Your task to perform on an android device: move a message to another label in the gmail app Image 0: 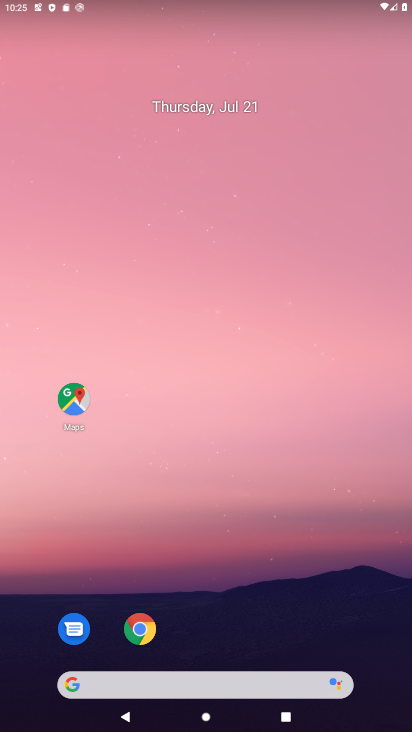
Step 0: drag from (217, 635) to (304, 46)
Your task to perform on an android device: move a message to another label in the gmail app Image 1: 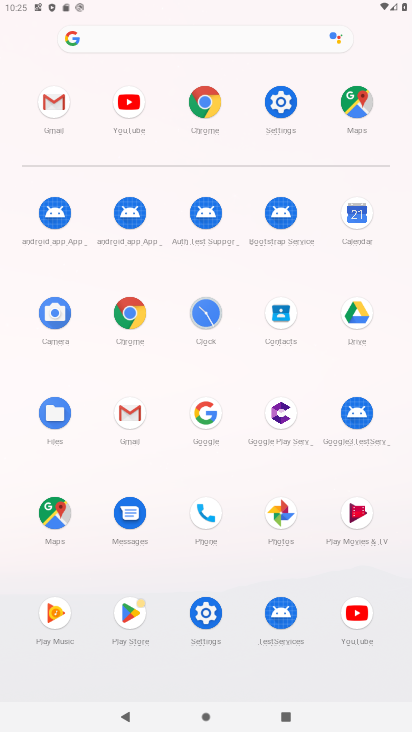
Step 1: click (52, 95)
Your task to perform on an android device: move a message to another label in the gmail app Image 2: 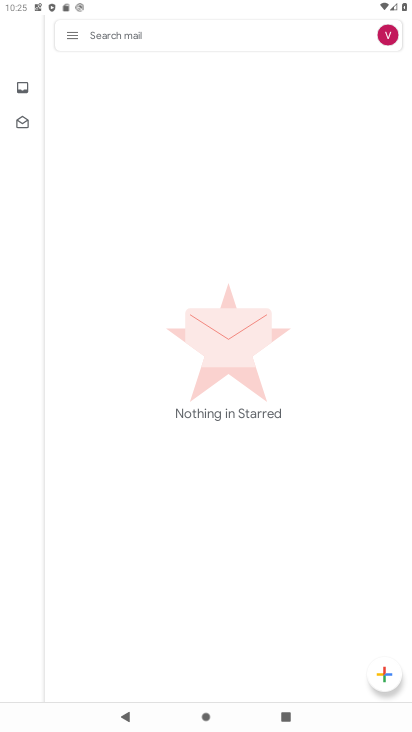
Step 2: click (64, 43)
Your task to perform on an android device: move a message to another label in the gmail app Image 3: 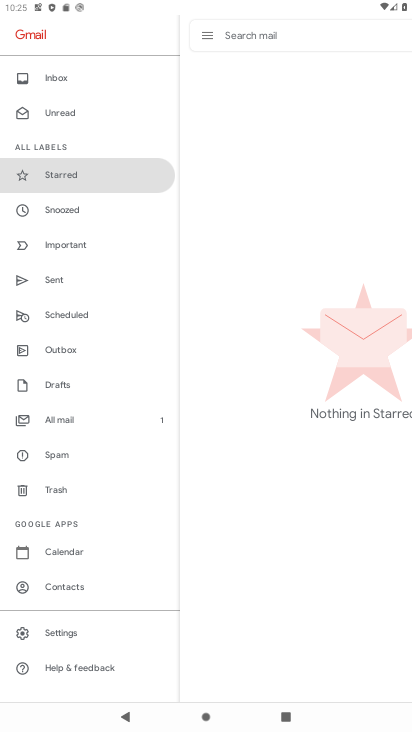
Step 3: click (63, 83)
Your task to perform on an android device: move a message to another label in the gmail app Image 4: 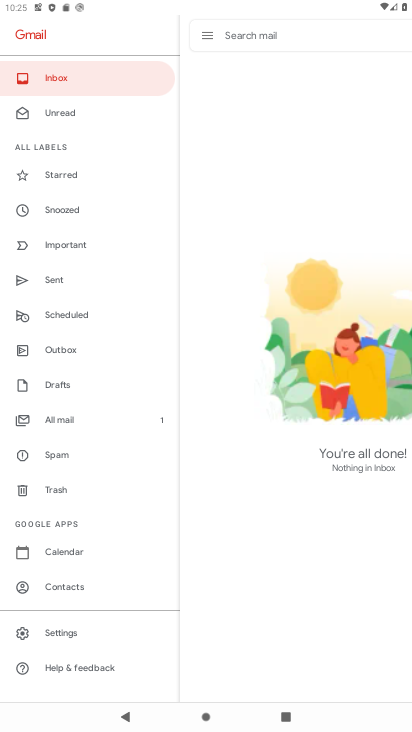
Step 4: task complete